Your task to perform on an android device: turn off wifi Image 0: 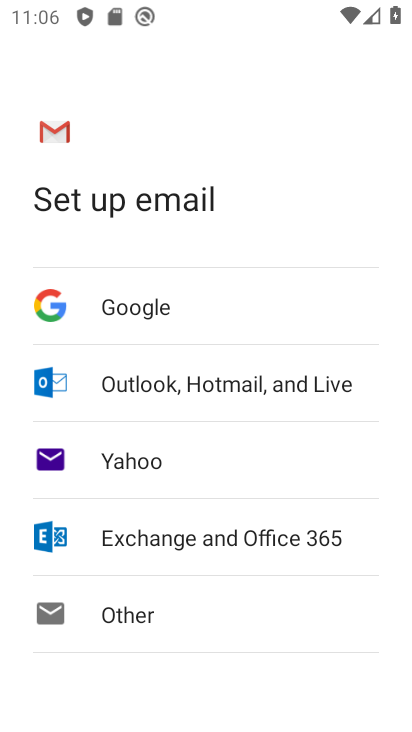
Step 0: press home button
Your task to perform on an android device: turn off wifi Image 1: 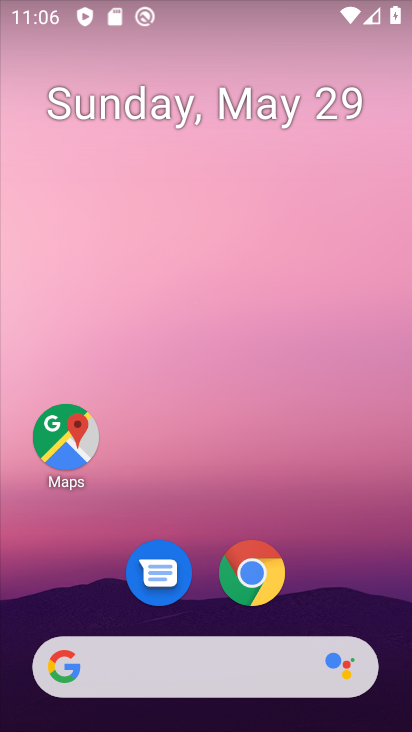
Step 1: drag from (322, 533) to (287, 81)
Your task to perform on an android device: turn off wifi Image 2: 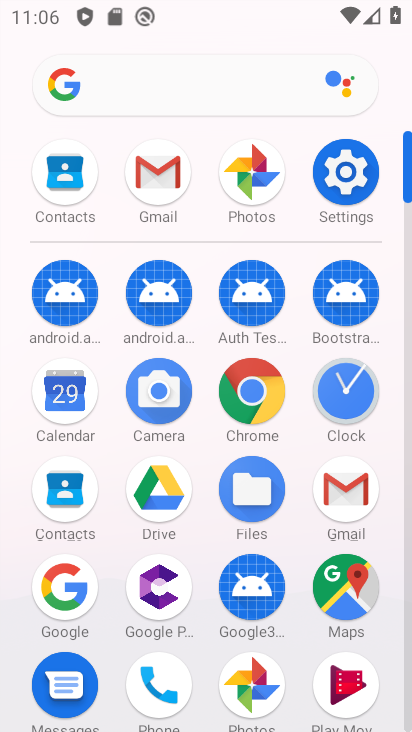
Step 2: click (349, 185)
Your task to perform on an android device: turn off wifi Image 3: 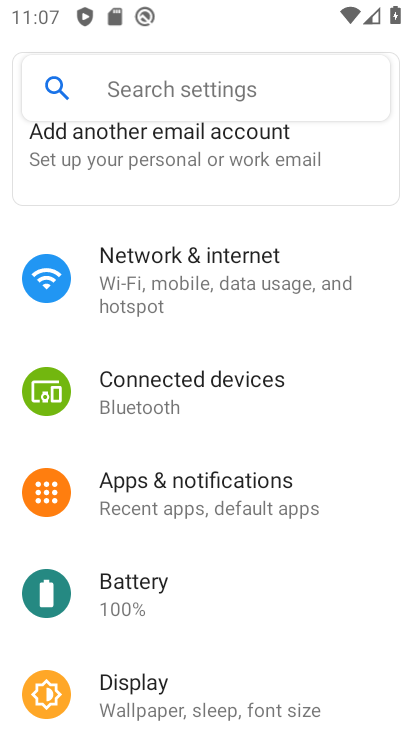
Step 3: click (210, 296)
Your task to perform on an android device: turn off wifi Image 4: 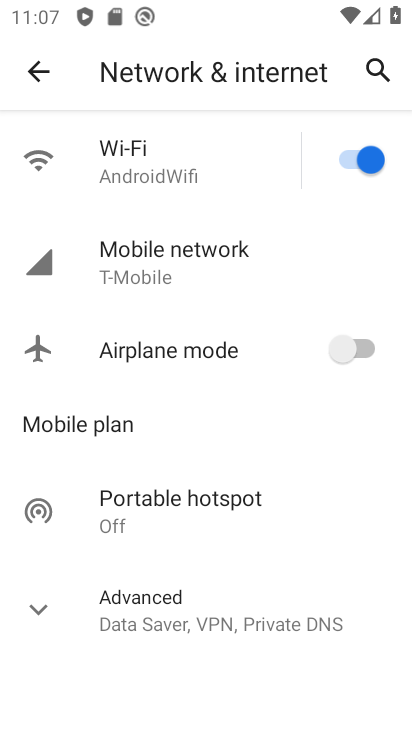
Step 4: click (350, 160)
Your task to perform on an android device: turn off wifi Image 5: 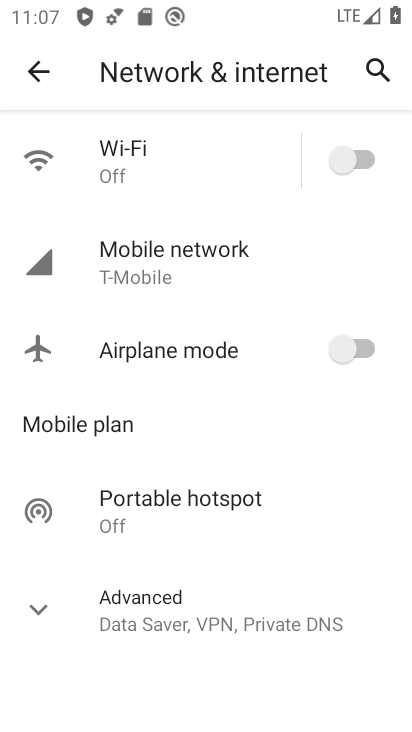
Step 5: task complete